Your task to perform on an android device: turn off sleep mode Image 0: 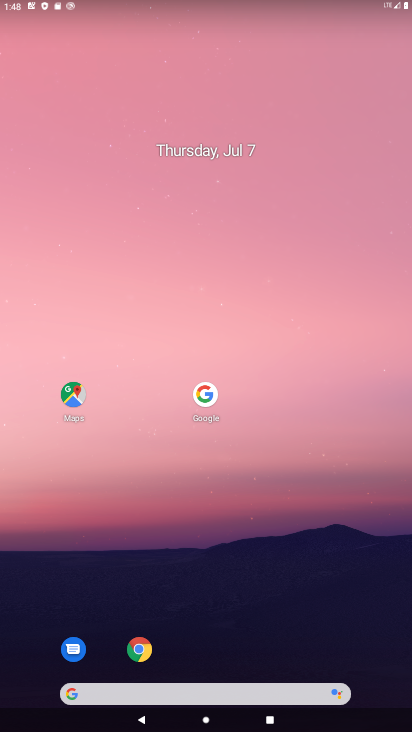
Step 0: press home button
Your task to perform on an android device: turn off sleep mode Image 1: 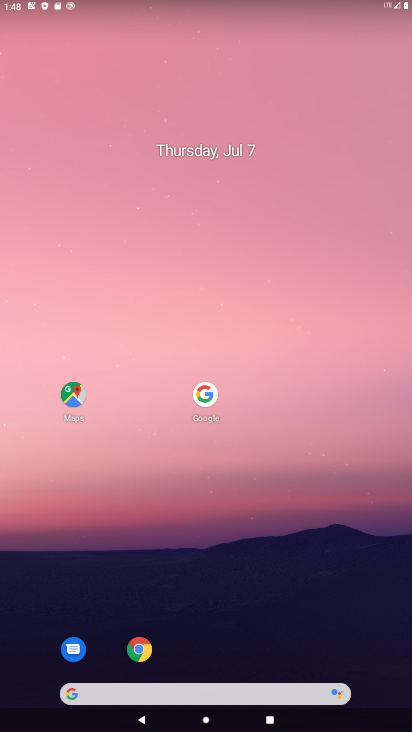
Step 1: drag from (283, 521) to (288, 38)
Your task to perform on an android device: turn off sleep mode Image 2: 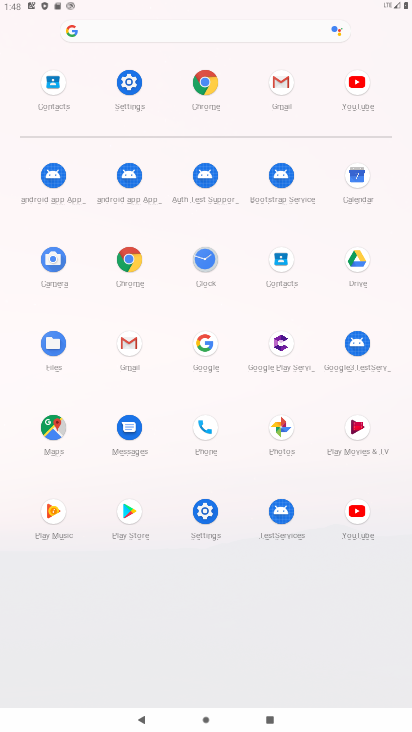
Step 2: click (127, 78)
Your task to perform on an android device: turn off sleep mode Image 3: 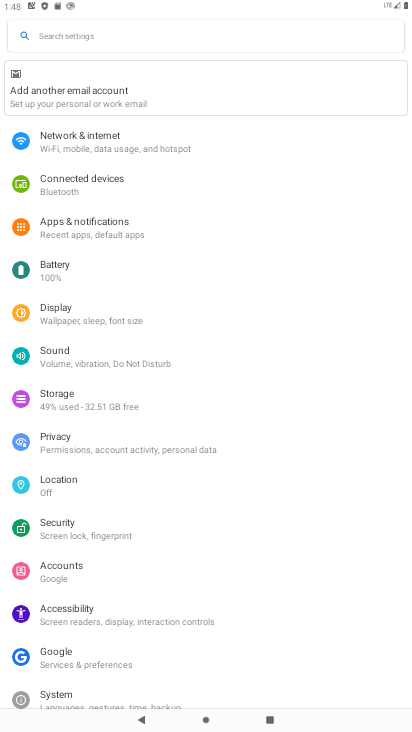
Step 3: click (64, 310)
Your task to perform on an android device: turn off sleep mode Image 4: 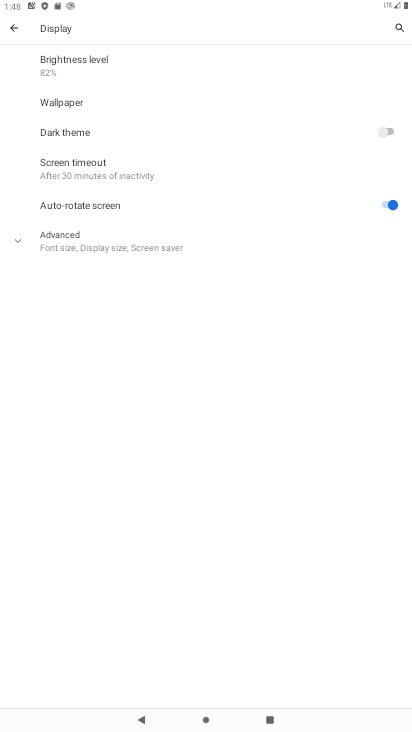
Step 4: click (79, 244)
Your task to perform on an android device: turn off sleep mode Image 5: 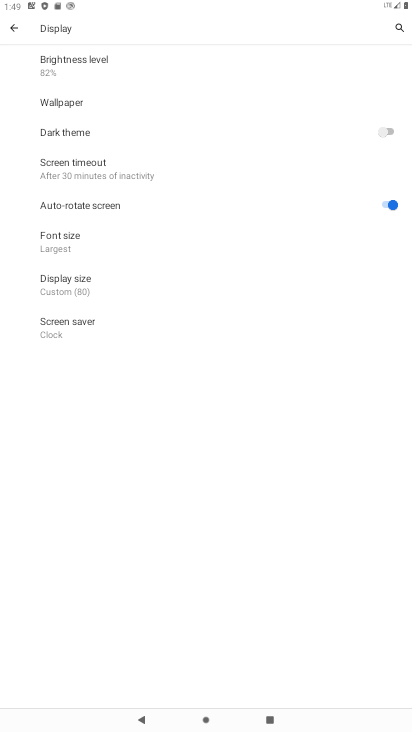
Step 5: task complete